Your task to perform on an android device: Show me popular games on the Play Store Image 0: 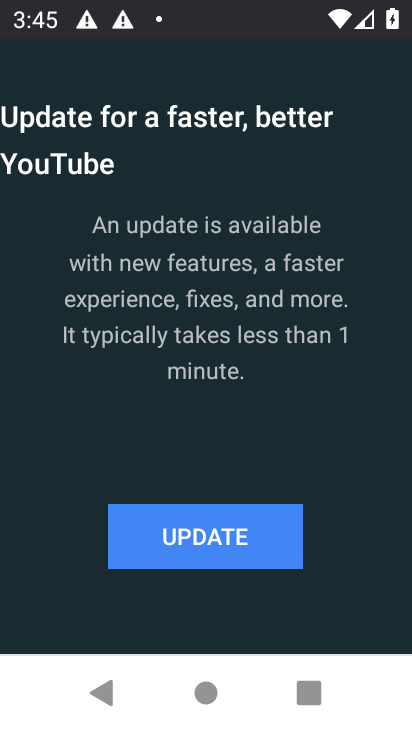
Step 0: press back button
Your task to perform on an android device: Show me popular games on the Play Store Image 1: 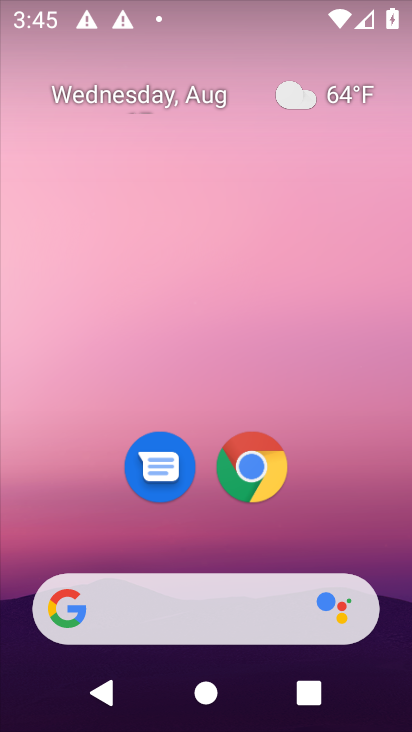
Step 1: drag from (42, 686) to (25, 232)
Your task to perform on an android device: Show me popular games on the Play Store Image 2: 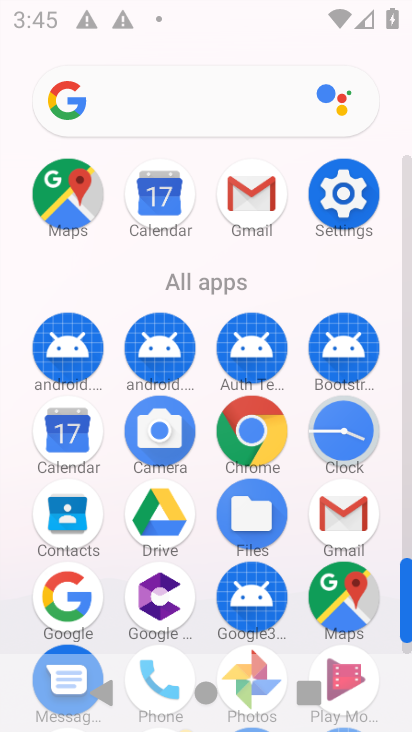
Step 2: click (24, 264)
Your task to perform on an android device: Show me popular games on the Play Store Image 3: 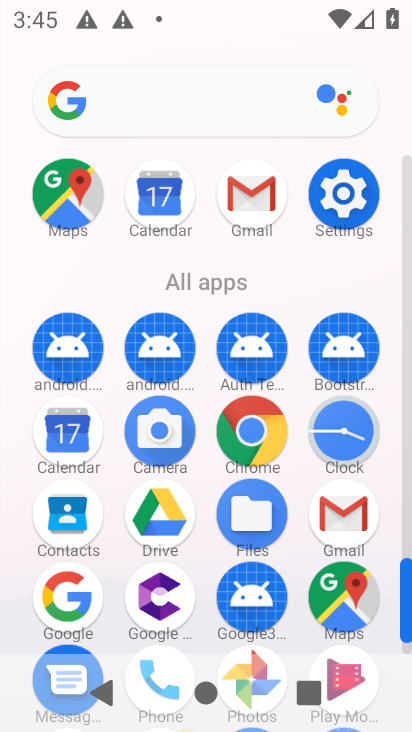
Step 3: drag from (22, 680) to (63, 465)
Your task to perform on an android device: Show me popular games on the Play Store Image 4: 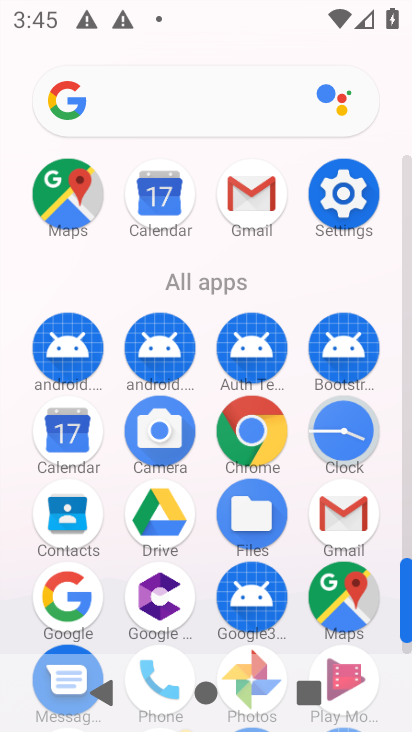
Step 4: drag from (11, 674) to (0, 237)
Your task to perform on an android device: Show me popular games on the Play Store Image 5: 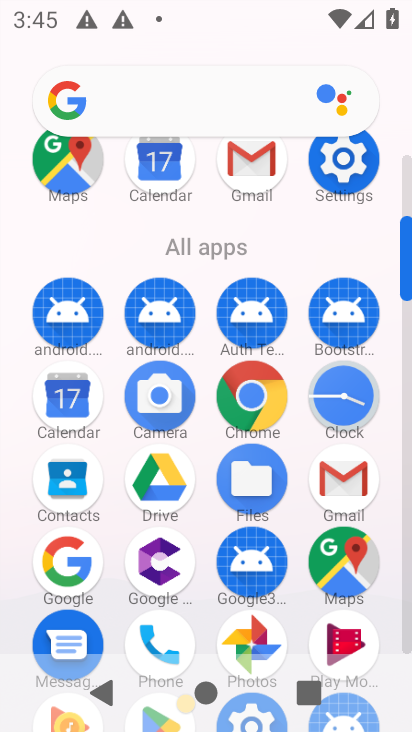
Step 5: drag from (4, 711) to (9, 404)
Your task to perform on an android device: Show me popular games on the Play Store Image 6: 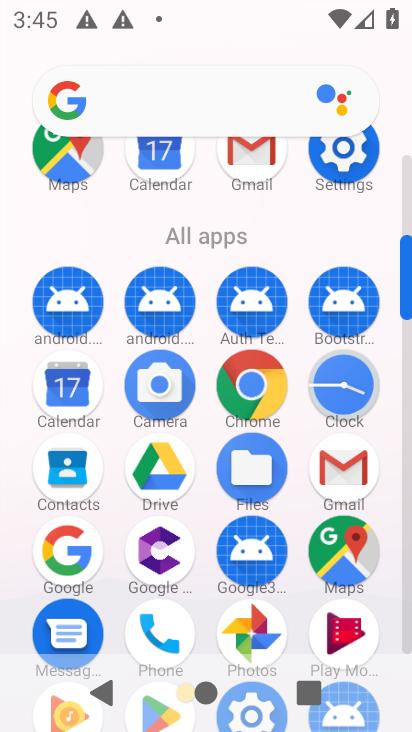
Step 6: drag from (10, 702) to (4, 512)
Your task to perform on an android device: Show me popular games on the Play Store Image 7: 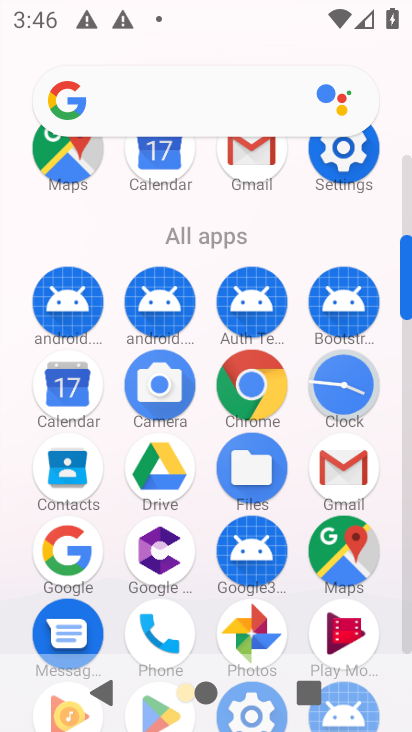
Step 7: drag from (20, 710) to (7, 391)
Your task to perform on an android device: Show me popular games on the Play Store Image 8: 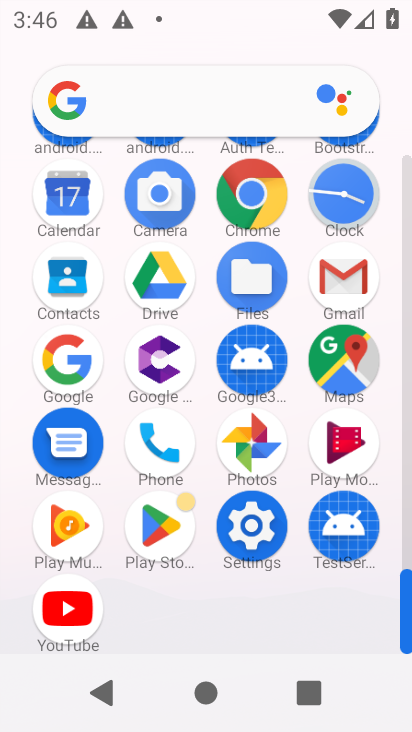
Step 8: click (407, 492)
Your task to perform on an android device: Show me popular games on the Play Store Image 9: 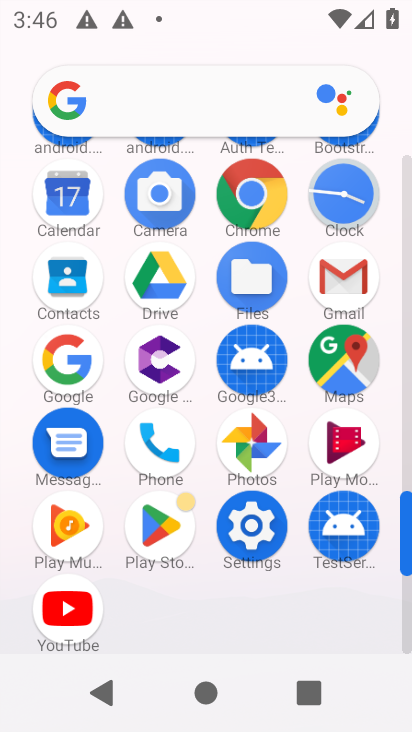
Step 9: click (159, 514)
Your task to perform on an android device: Show me popular games on the Play Store Image 10: 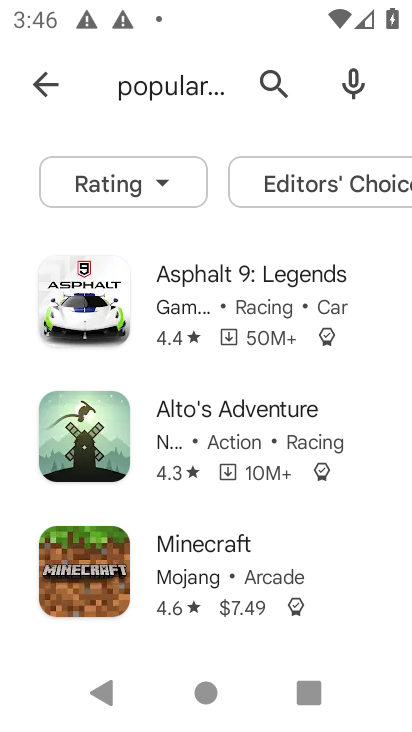
Step 10: task complete